Your task to perform on an android device: turn on showing notifications on the lock screen Image 0: 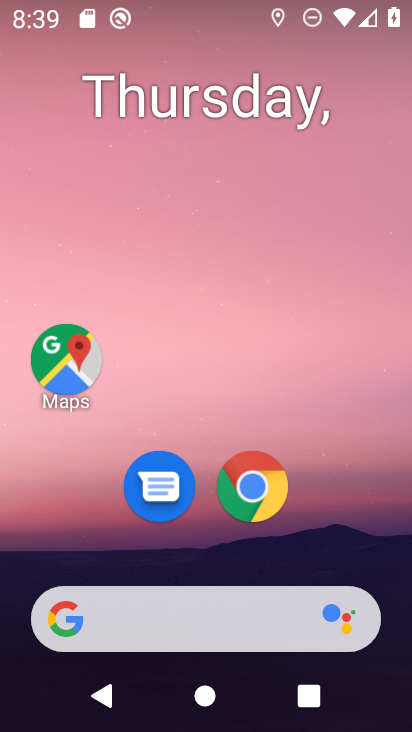
Step 0: drag from (102, 570) to (189, 68)
Your task to perform on an android device: turn on showing notifications on the lock screen Image 1: 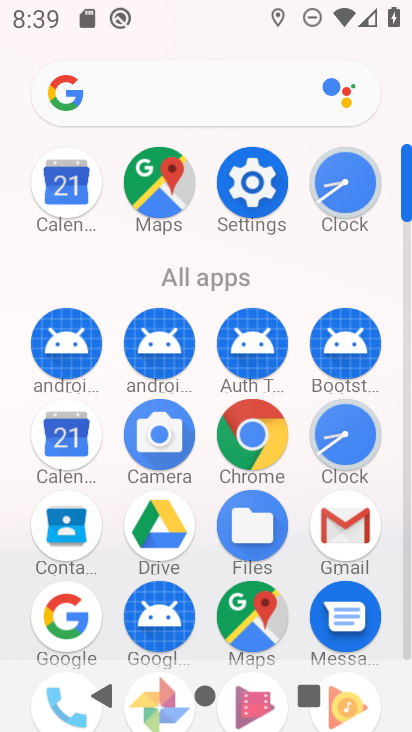
Step 1: click (253, 192)
Your task to perform on an android device: turn on showing notifications on the lock screen Image 2: 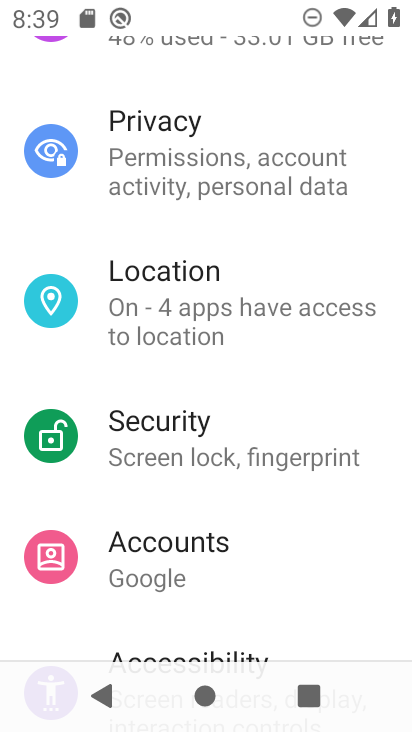
Step 2: drag from (237, 207) to (188, 627)
Your task to perform on an android device: turn on showing notifications on the lock screen Image 3: 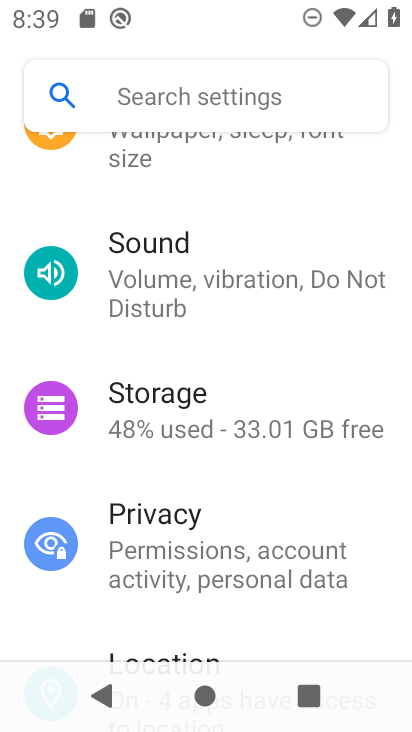
Step 3: drag from (193, 287) to (151, 642)
Your task to perform on an android device: turn on showing notifications on the lock screen Image 4: 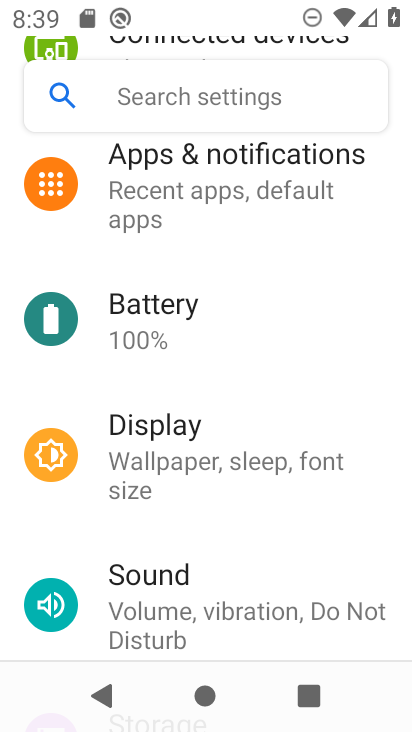
Step 4: click (232, 180)
Your task to perform on an android device: turn on showing notifications on the lock screen Image 5: 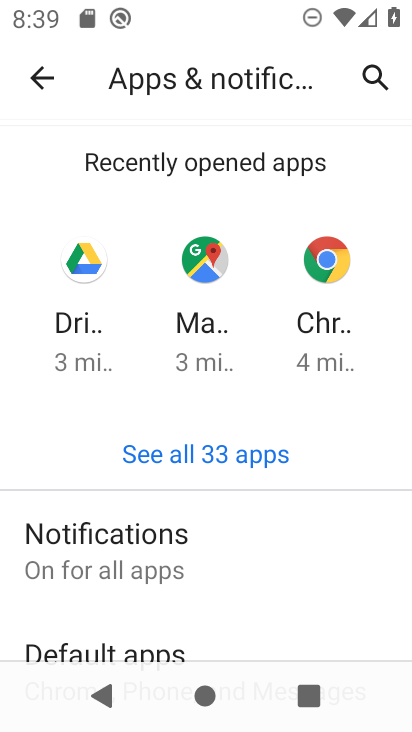
Step 5: click (162, 549)
Your task to perform on an android device: turn on showing notifications on the lock screen Image 6: 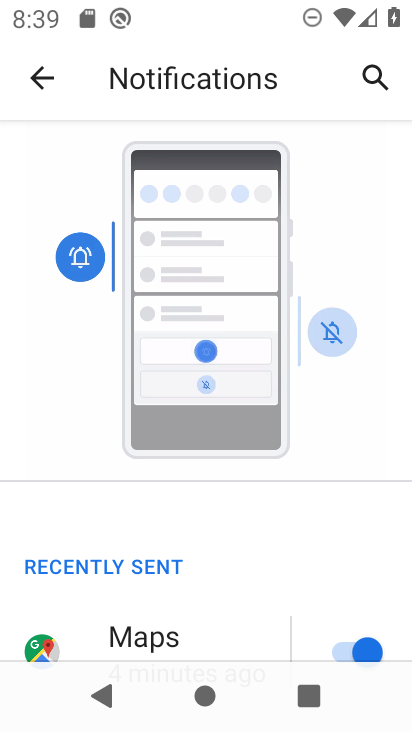
Step 6: drag from (152, 617) to (263, 145)
Your task to perform on an android device: turn on showing notifications on the lock screen Image 7: 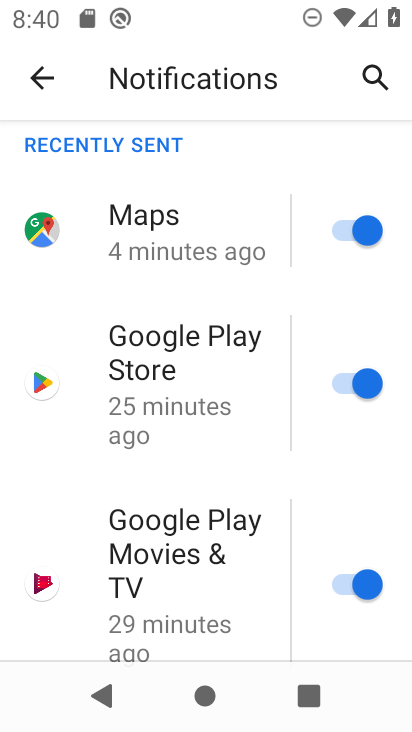
Step 7: drag from (183, 623) to (277, 57)
Your task to perform on an android device: turn on showing notifications on the lock screen Image 8: 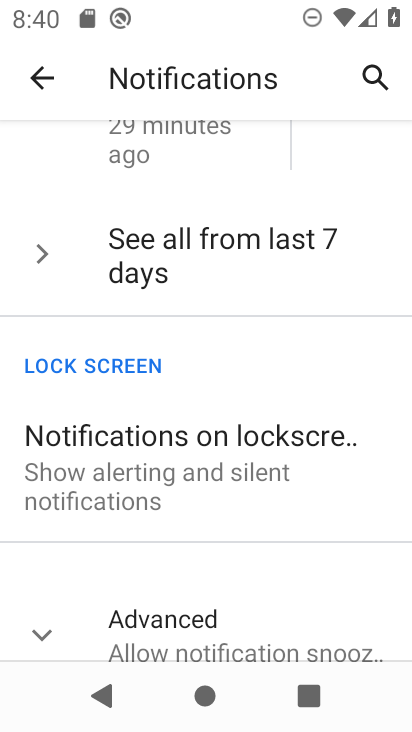
Step 8: click (180, 485)
Your task to perform on an android device: turn on showing notifications on the lock screen Image 9: 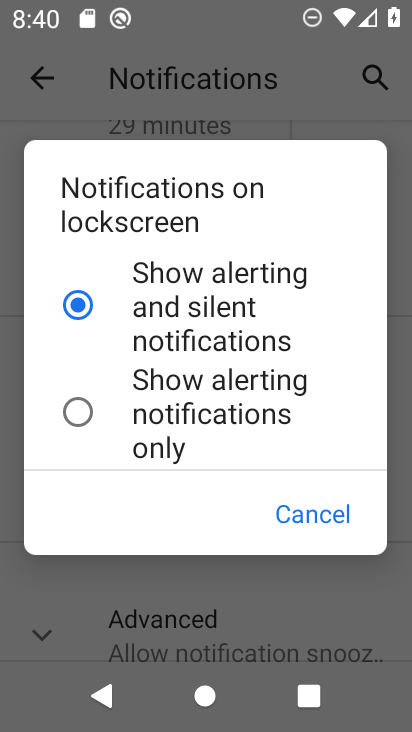
Step 9: task complete